Your task to perform on an android device: What's on the menu at Five Guys? Image 0: 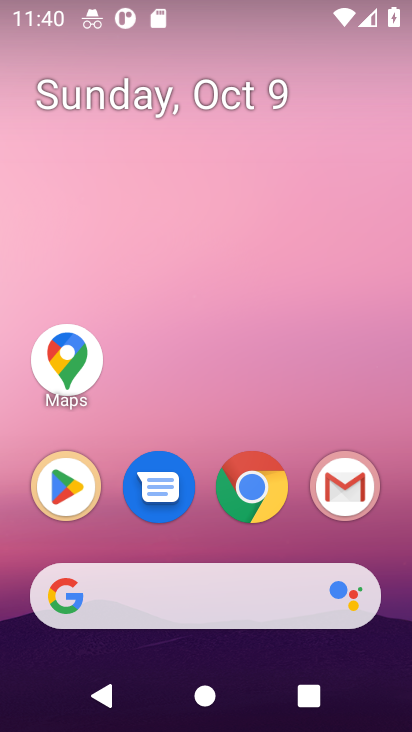
Step 0: click (252, 484)
Your task to perform on an android device: What's on the menu at Five Guys? Image 1: 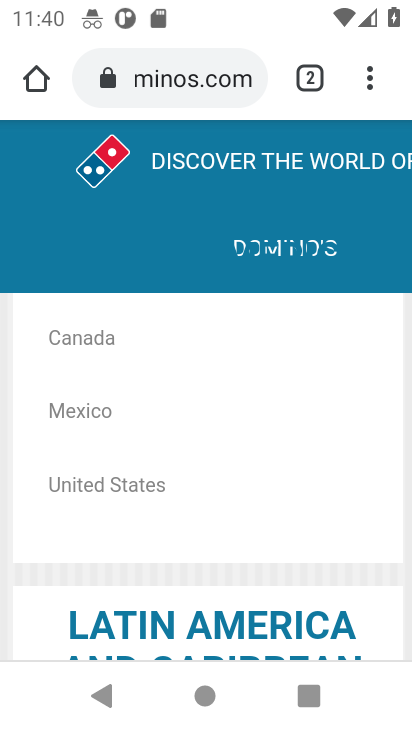
Step 1: click (177, 83)
Your task to perform on an android device: What's on the menu at Five Guys? Image 2: 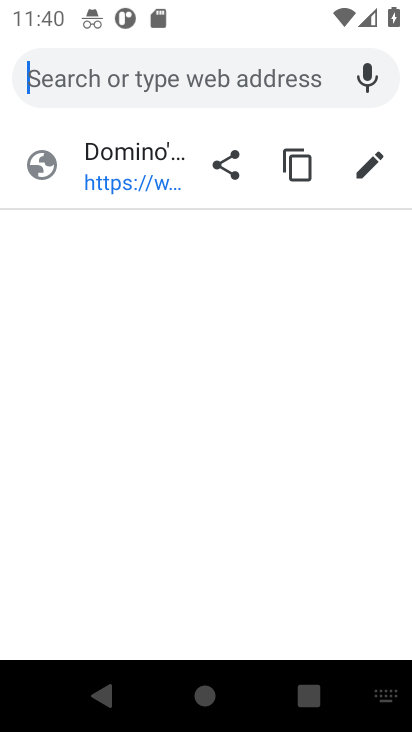
Step 2: type "five guys menu"
Your task to perform on an android device: What's on the menu at Five Guys? Image 3: 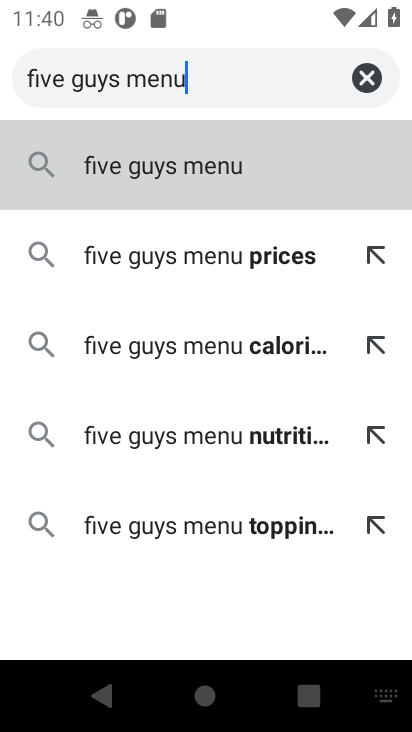
Step 3: type ""
Your task to perform on an android device: What's on the menu at Five Guys? Image 4: 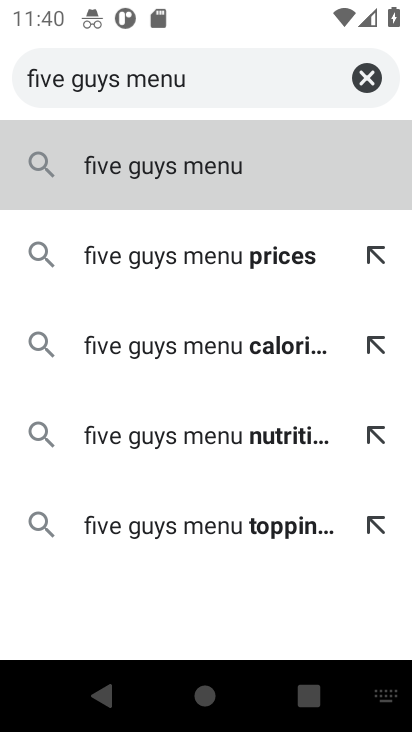
Step 4: press enter
Your task to perform on an android device: What's on the menu at Five Guys? Image 5: 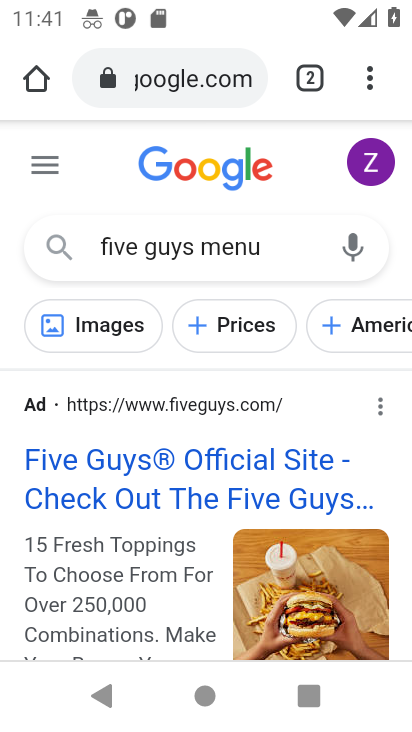
Step 5: drag from (79, 560) to (156, 109)
Your task to perform on an android device: What's on the menu at Five Guys? Image 6: 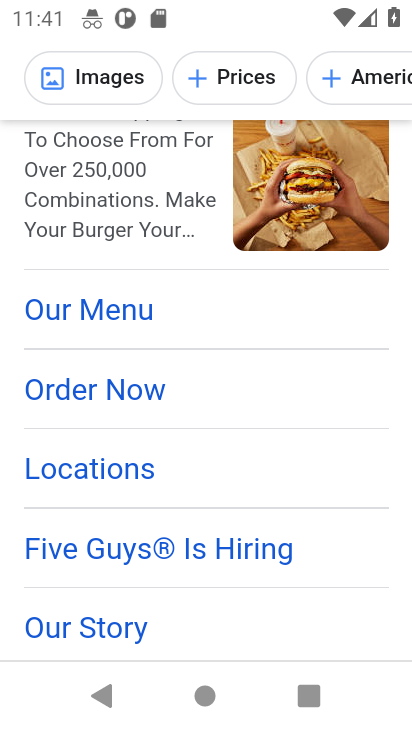
Step 6: drag from (176, 610) to (175, 106)
Your task to perform on an android device: What's on the menu at Five Guys? Image 7: 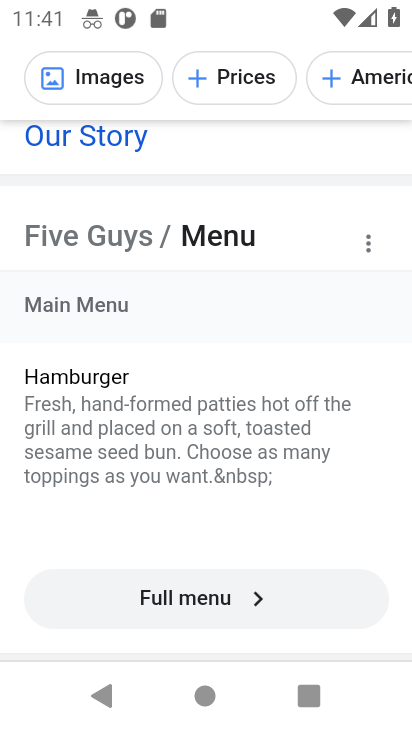
Step 7: drag from (191, 470) to (192, 286)
Your task to perform on an android device: What's on the menu at Five Guys? Image 8: 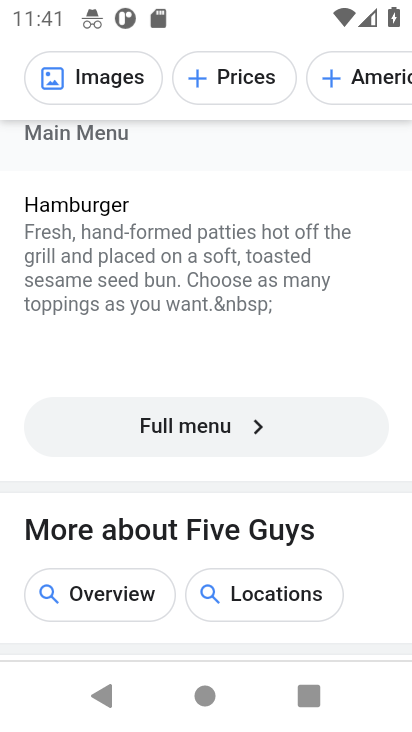
Step 8: drag from (193, 368) to (178, 161)
Your task to perform on an android device: What's on the menu at Five Guys? Image 9: 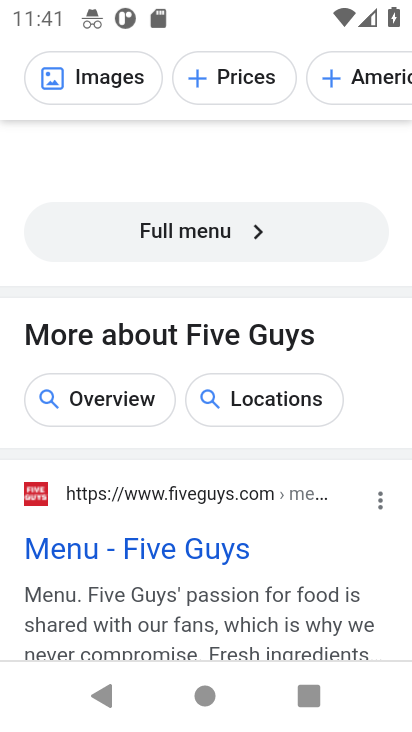
Step 9: drag from (196, 591) to (177, 518)
Your task to perform on an android device: What's on the menu at Five Guys? Image 10: 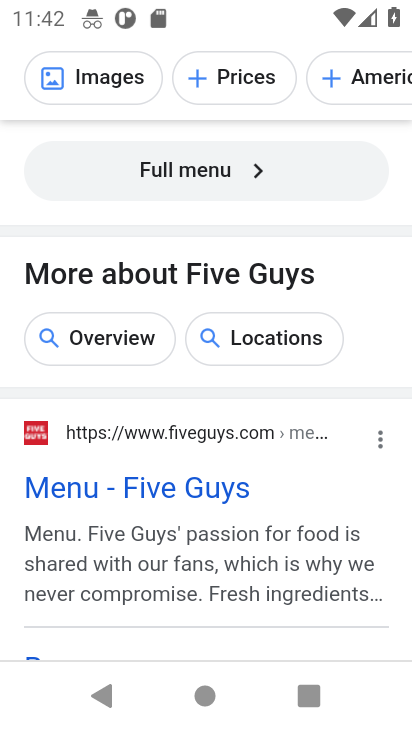
Step 10: click (167, 485)
Your task to perform on an android device: What's on the menu at Five Guys? Image 11: 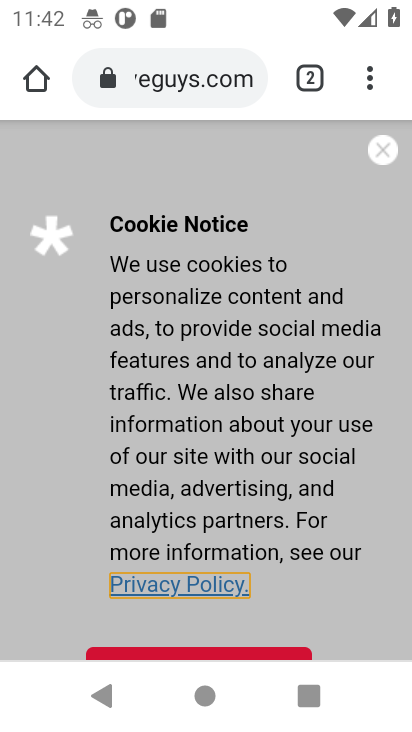
Step 11: drag from (307, 588) to (301, 386)
Your task to perform on an android device: What's on the menu at Five Guys? Image 12: 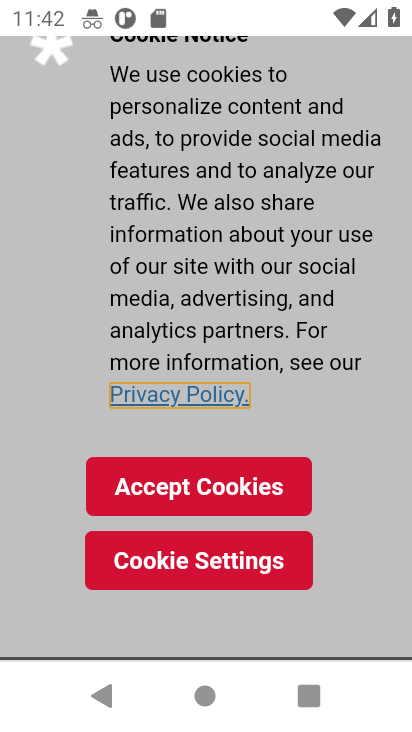
Step 12: click (202, 486)
Your task to perform on an android device: What's on the menu at Five Guys? Image 13: 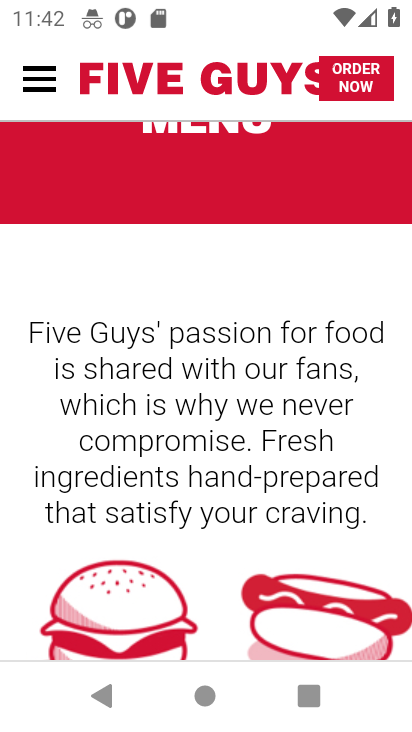
Step 13: task complete